Your task to perform on an android device: Turn off the flashlight Image 0: 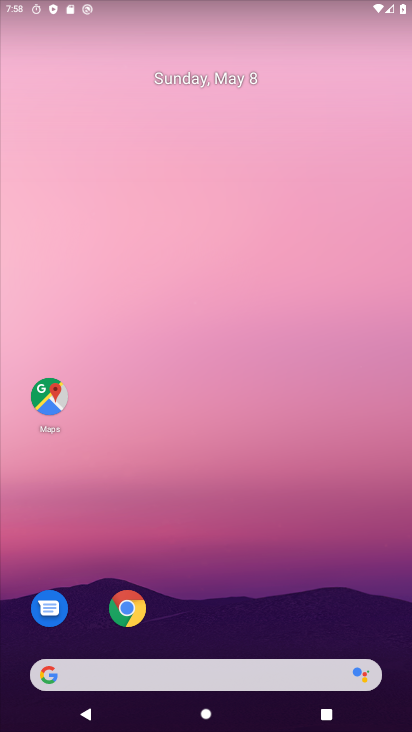
Step 0: drag from (213, 584) to (224, 148)
Your task to perform on an android device: Turn off the flashlight Image 1: 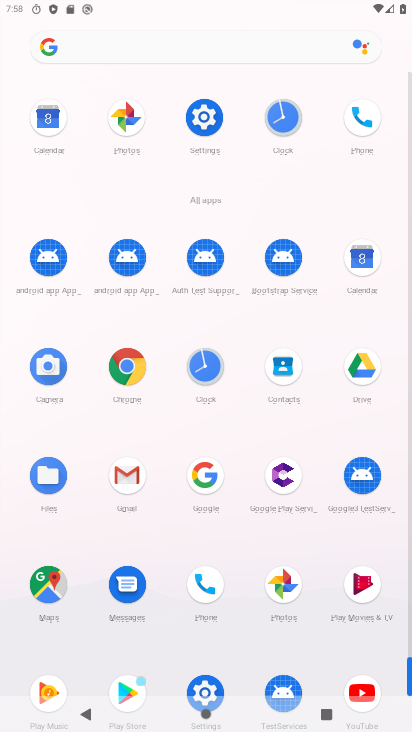
Step 1: click (213, 127)
Your task to perform on an android device: Turn off the flashlight Image 2: 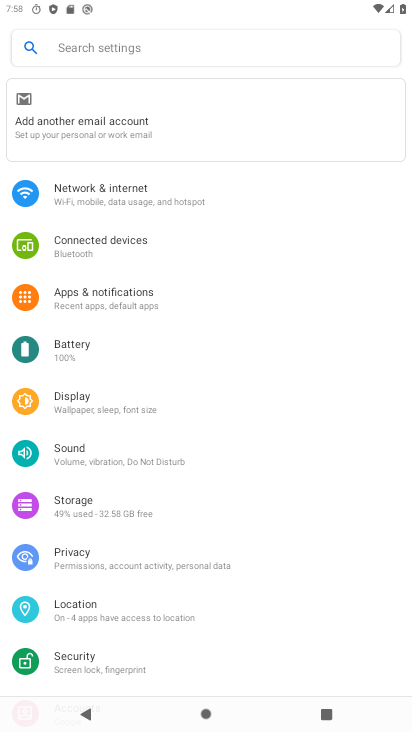
Step 2: click (88, 47)
Your task to perform on an android device: Turn off the flashlight Image 3: 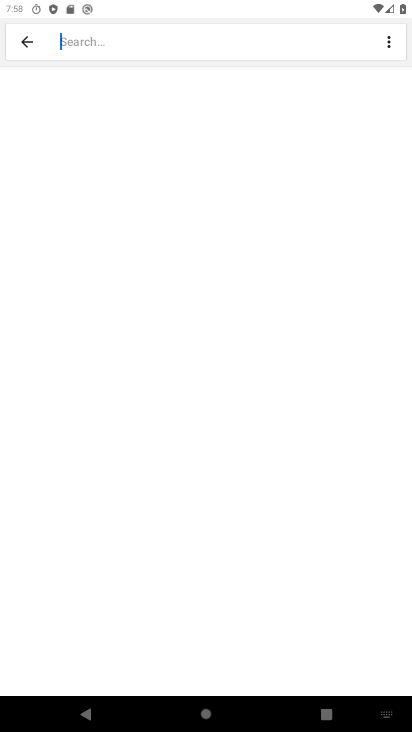
Step 3: type "flashlight"
Your task to perform on an android device: Turn off the flashlight Image 4: 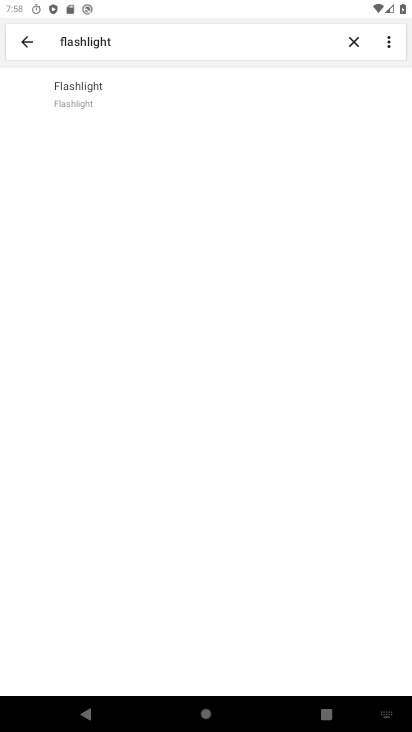
Step 4: click (106, 101)
Your task to perform on an android device: Turn off the flashlight Image 5: 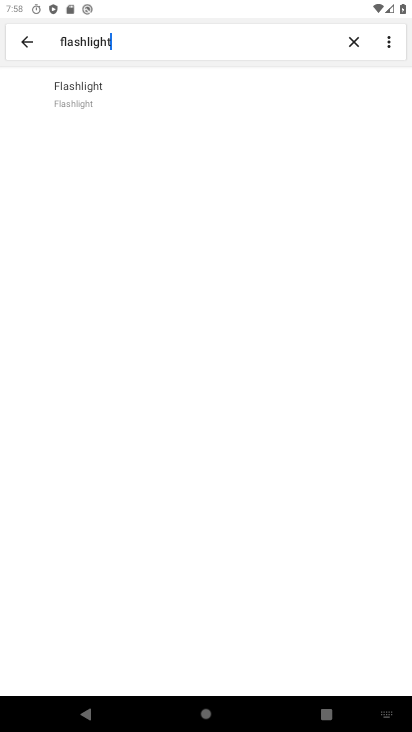
Step 5: click (134, 103)
Your task to perform on an android device: Turn off the flashlight Image 6: 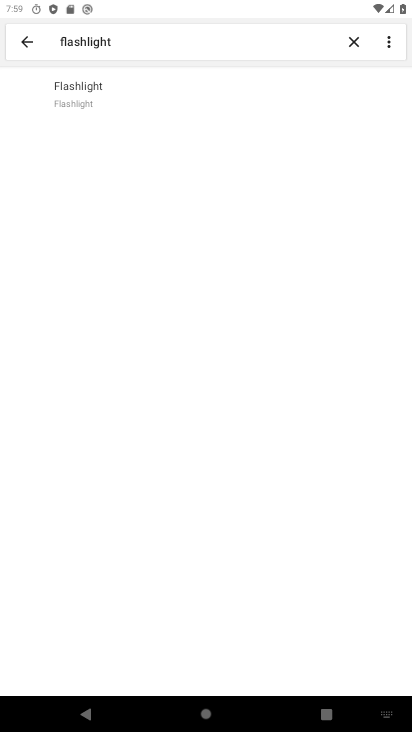
Step 6: task complete